Your task to perform on an android device: toggle wifi Image 0: 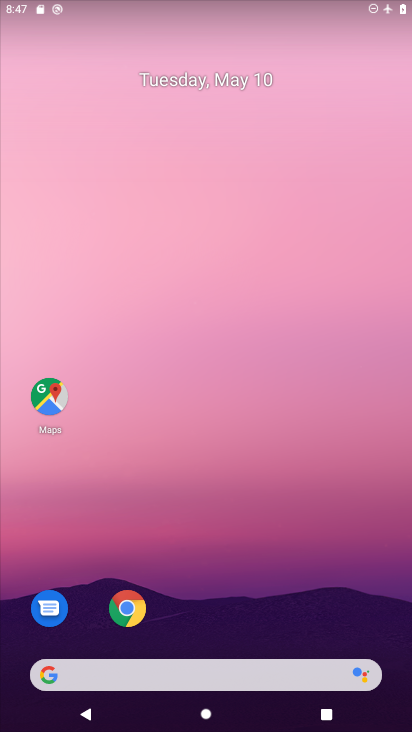
Step 0: drag from (240, 560) to (281, 227)
Your task to perform on an android device: toggle wifi Image 1: 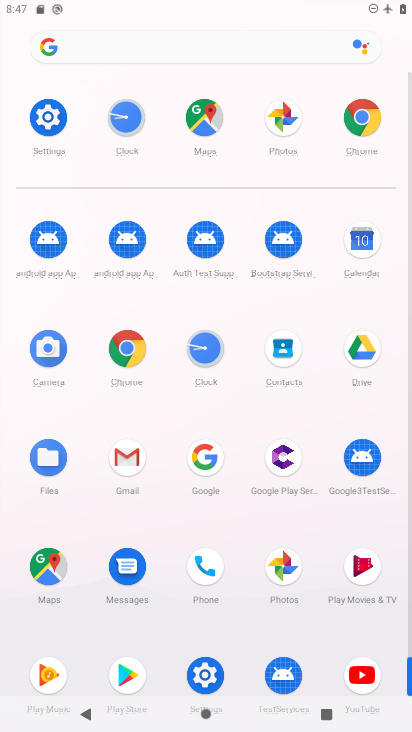
Step 1: click (54, 111)
Your task to perform on an android device: toggle wifi Image 2: 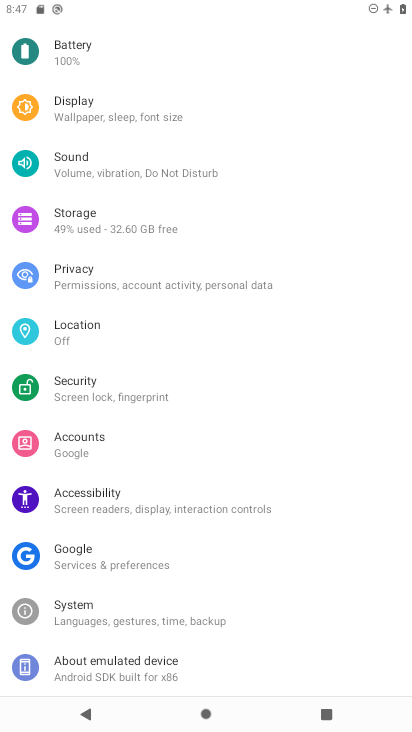
Step 2: drag from (123, 113) to (149, 520)
Your task to perform on an android device: toggle wifi Image 3: 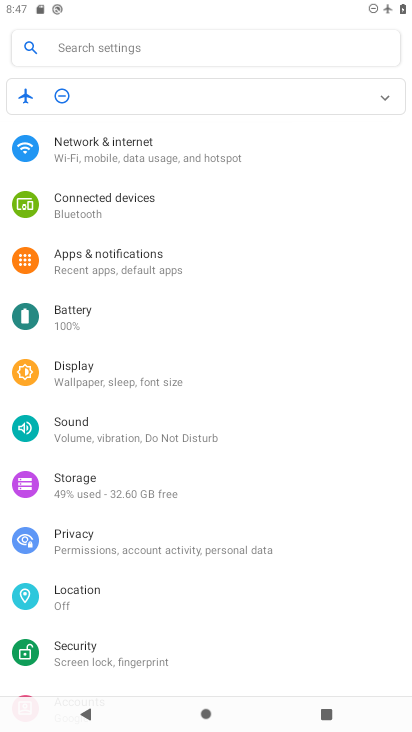
Step 3: click (113, 142)
Your task to perform on an android device: toggle wifi Image 4: 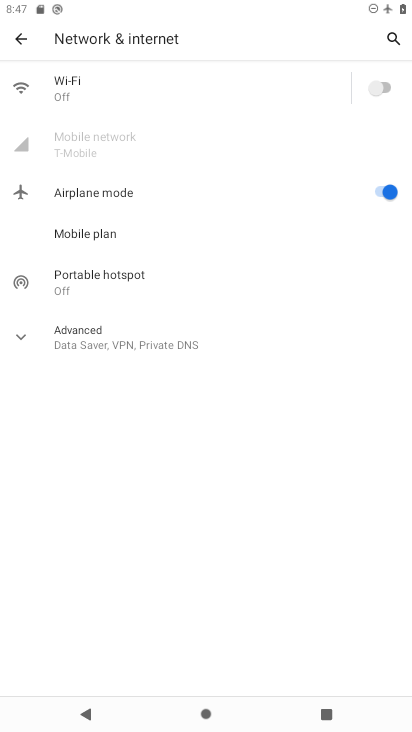
Step 4: click (384, 84)
Your task to perform on an android device: toggle wifi Image 5: 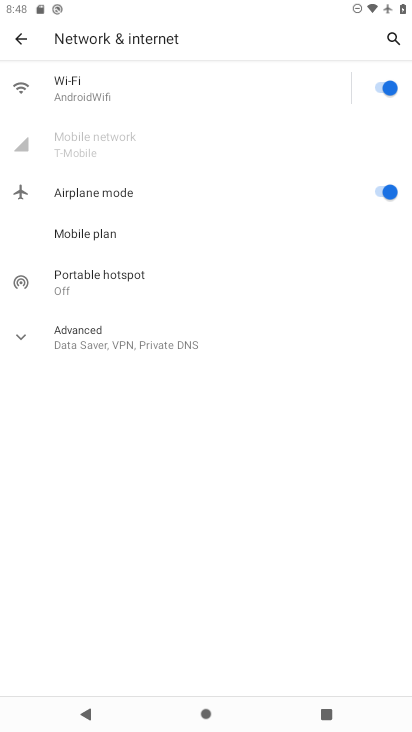
Step 5: task complete